Your task to perform on an android device: Open Google Chrome and open the bookmarks view Image 0: 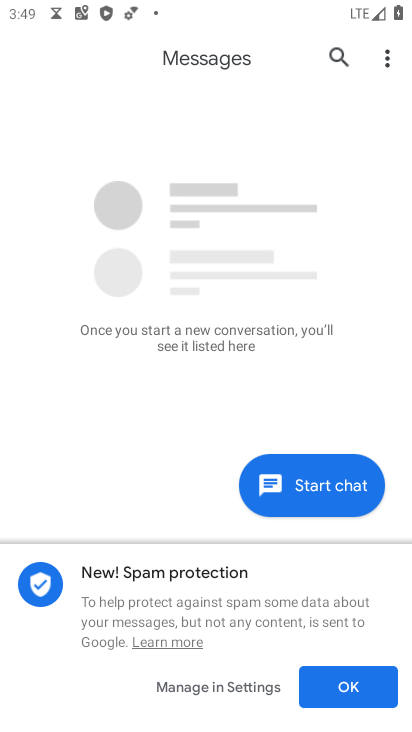
Step 0: press home button
Your task to perform on an android device: Open Google Chrome and open the bookmarks view Image 1: 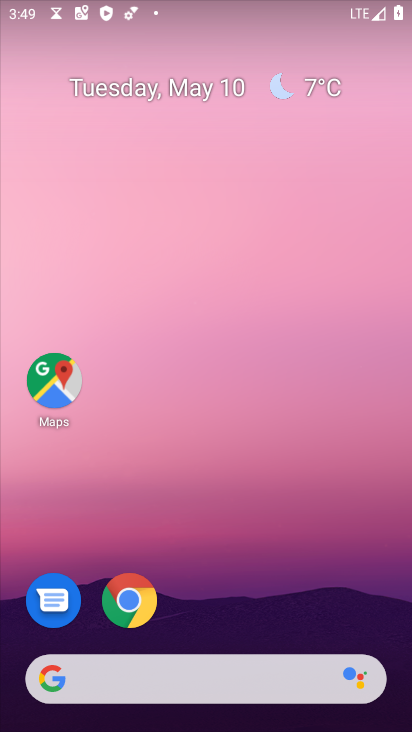
Step 1: click (123, 595)
Your task to perform on an android device: Open Google Chrome and open the bookmarks view Image 2: 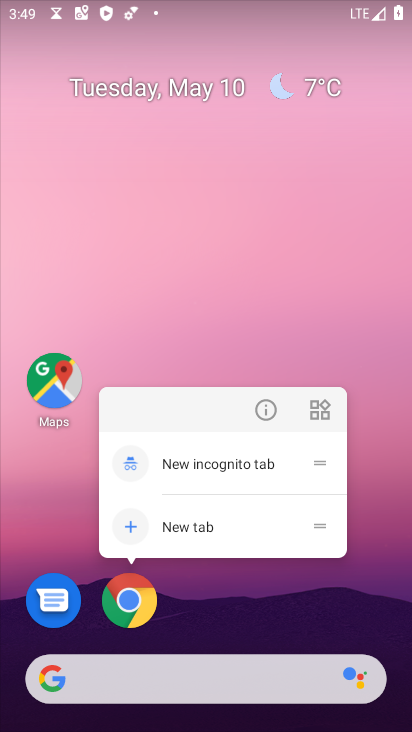
Step 2: click (126, 591)
Your task to perform on an android device: Open Google Chrome and open the bookmarks view Image 3: 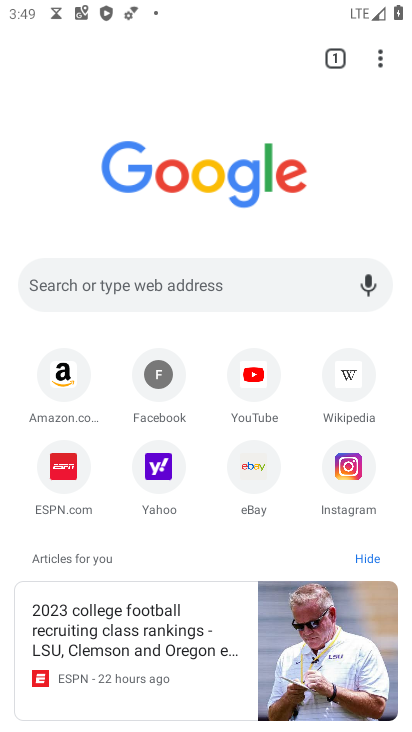
Step 3: click (378, 60)
Your task to perform on an android device: Open Google Chrome and open the bookmarks view Image 4: 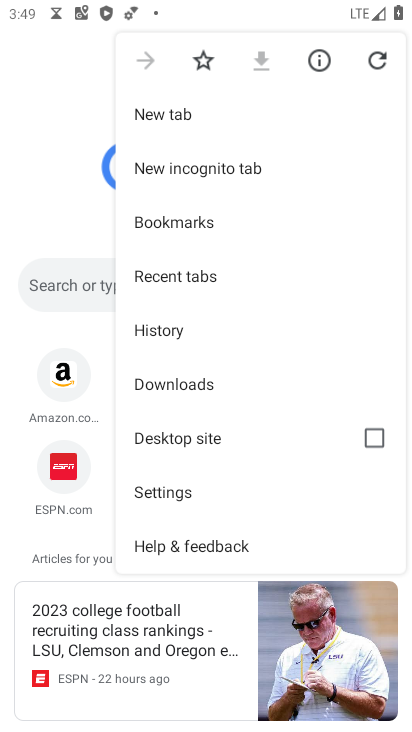
Step 4: click (339, 227)
Your task to perform on an android device: Open Google Chrome and open the bookmarks view Image 5: 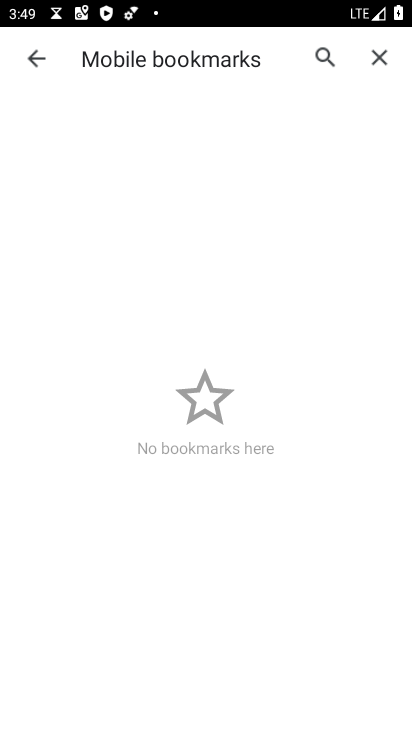
Step 5: task complete